Your task to perform on an android device: Search for pizza restaurants on Maps Image 0: 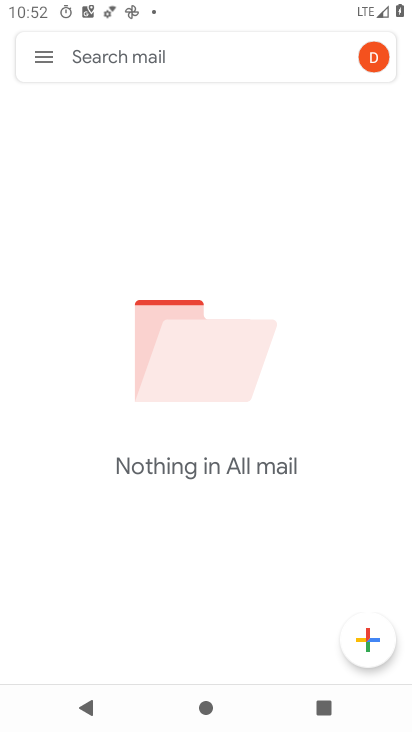
Step 0: press home button
Your task to perform on an android device: Search for pizza restaurants on Maps Image 1: 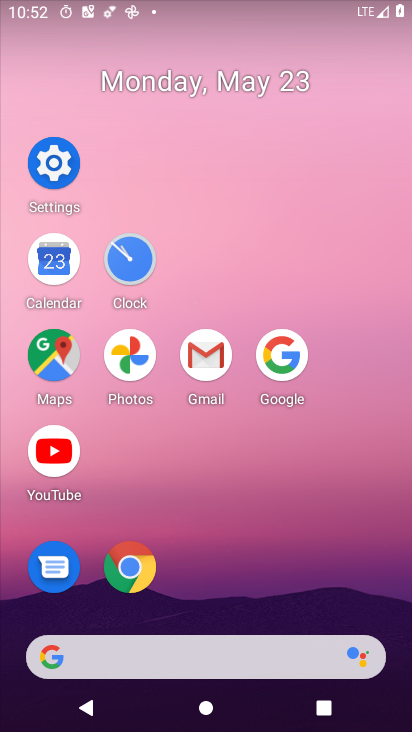
Step 1: click (74, 340)
Your task to perform on an android device: Search for pizza restaurants on Maps Image 2: 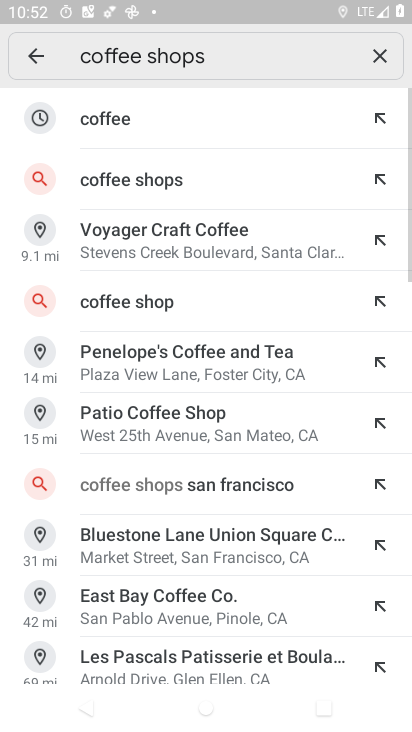
Step 2: click (382, 51)
Your task to perform on an android device: Search for pizza restaurants on Maps Image 3: 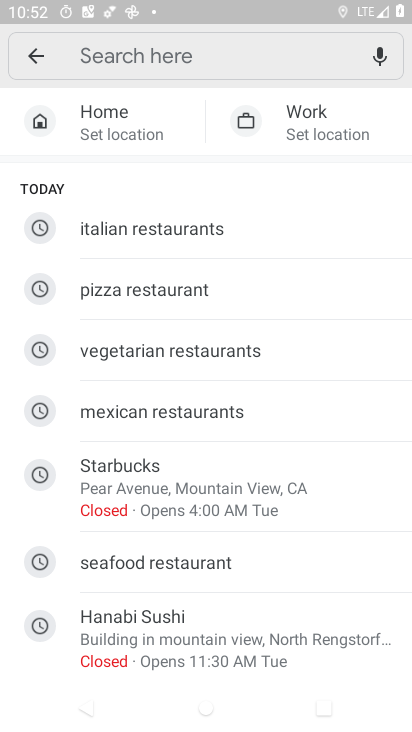
Step 3: click (243, 294)
Your task to perform on an android device: Search for pizza restaurants on Maps Image 4: 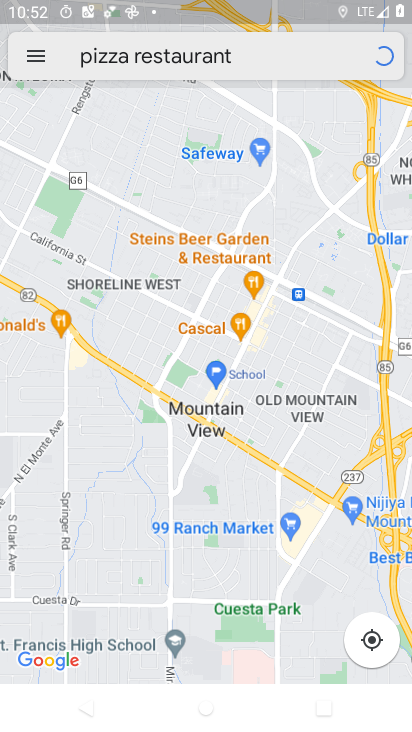
Step 4: task complete